Your task to perform on an android device: Toggle the flashlight Image 0: 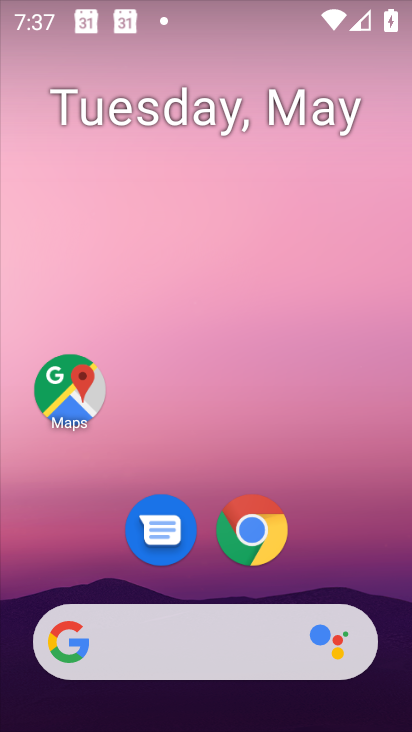
Step 0: drag from (219, 14) to (165, 580)
Your task to perform on an android device: Toggle the flashlight Image 1: 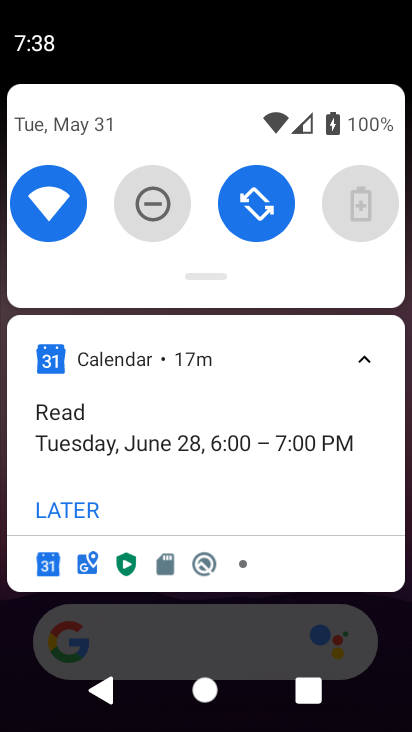
Step 1: task complete